Your task to perform on an android device: delete the emails in spam in the gmail app Image 0: 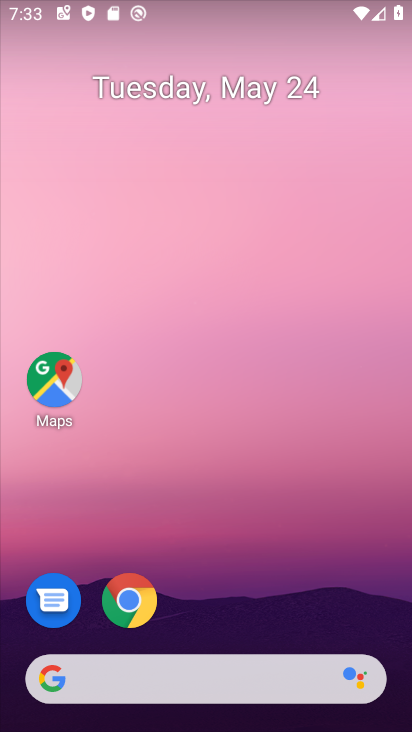
Step 0: drag from (242, 555) to (306, 50)
Your task to perform on an android device: delete the emails in spam in the gmail app Image 1: 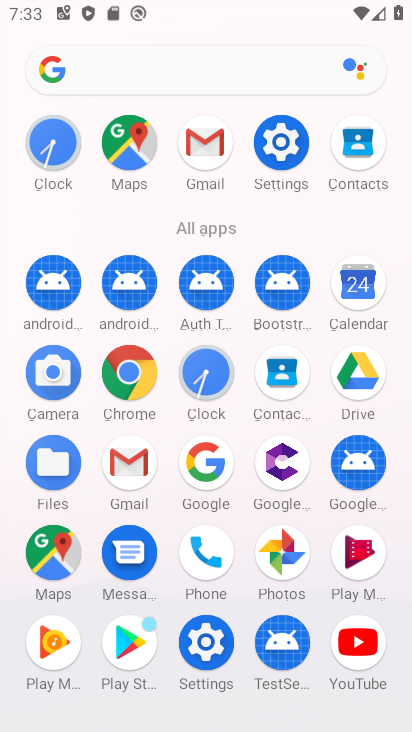
Step 1: click (198, 141)
Your task to perform on an android device: delete the emails in spam in the gmail app Image 2: 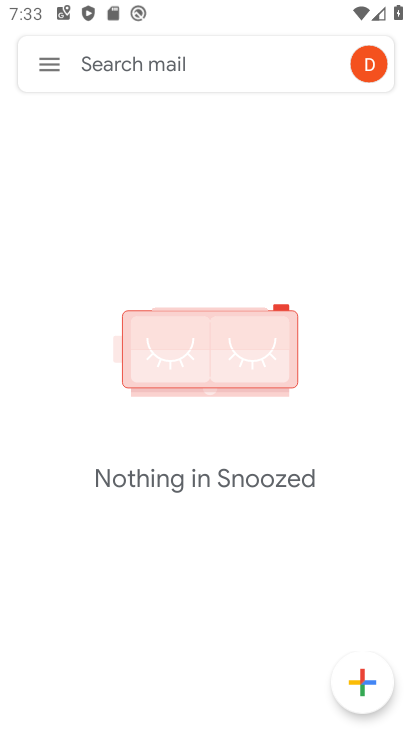
Step 2: click (49, 69)
Your task to perform on an android device: delete the emails in spam in the gmail app Image 3: 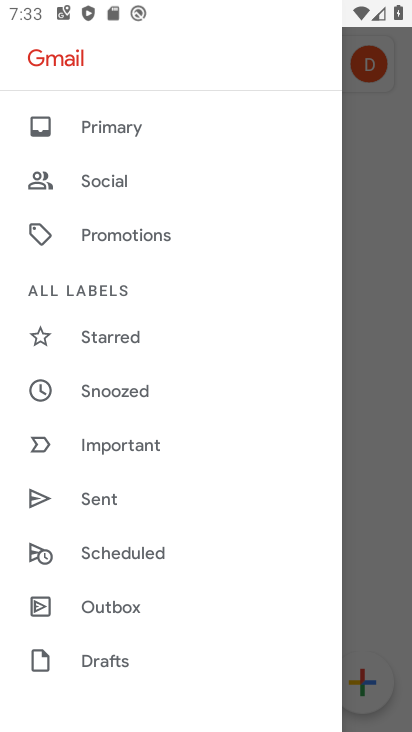
Step 3: drag from (148, 610) to (228, 208)
Your task to perform on an android device: delete the emails in spam in the gmail app Image 4: 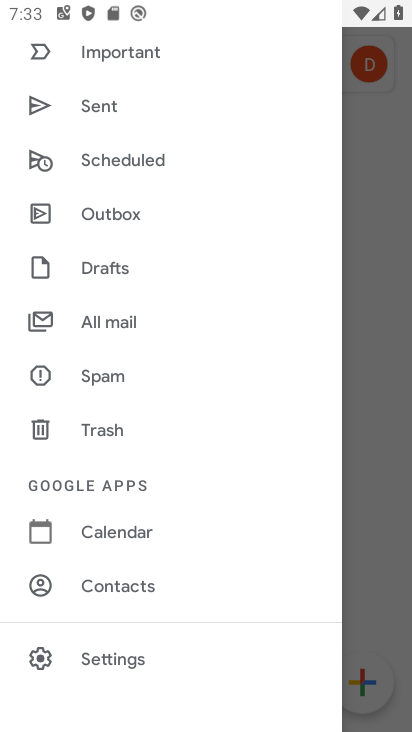
Step 4: click (100, 380)
Your task to perform on an android device: delete the emails in spam in the gmail app Image 5: 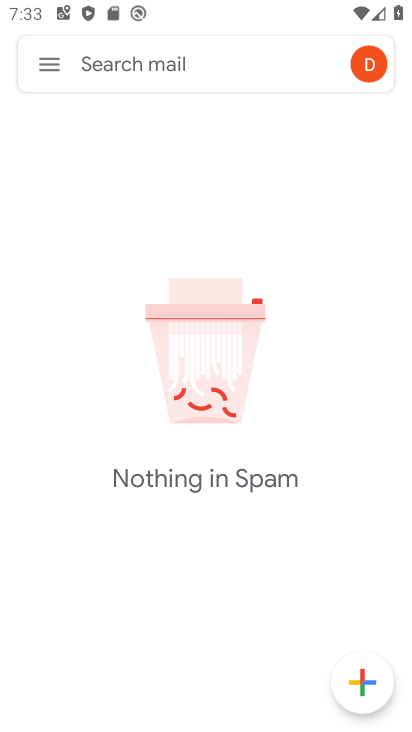
Step 5: task complete